Your task to perform on an android device: What's the weather today? Image 0: 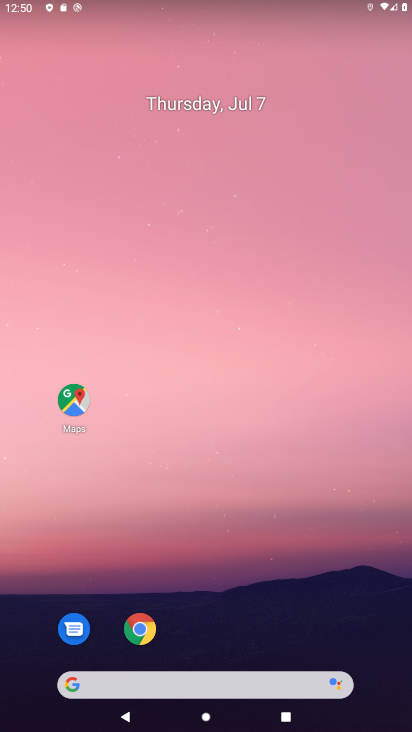
Step 0: drag from (220, 609) to (241, 171)
Your task to perform on an android device: What's the weather today? Image 1: 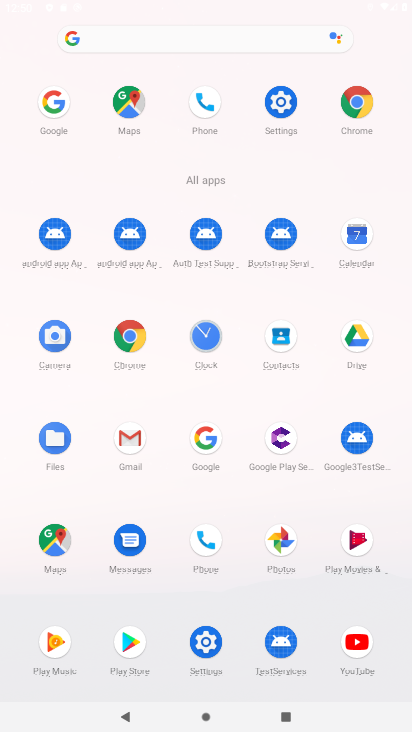
Step 1: click (51, 101)
Your task to perform on an android device: What's the weather today? Image 2: 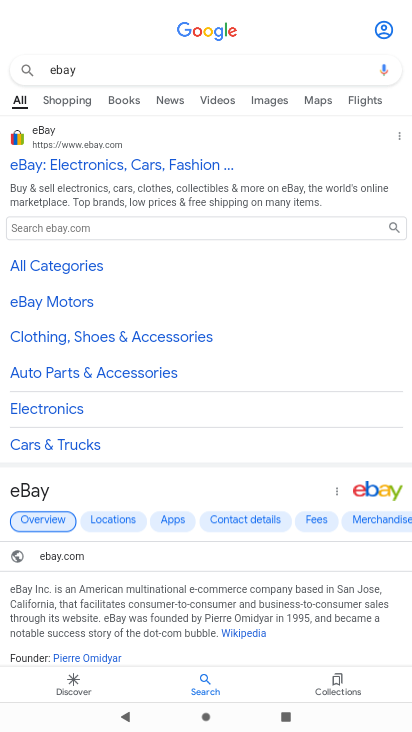
Step 2: click (224, 68)
Your task to perform on an android device: What's the weather today? Image 3: 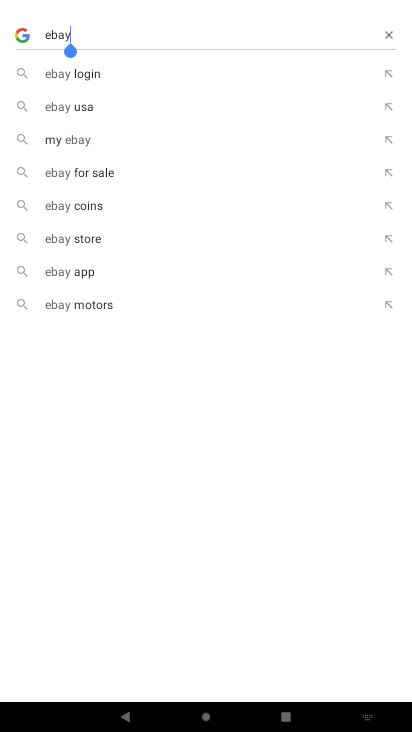
Step 3: click (382, 28)
Your task to perform on an android device: What's the weather today? Image 4: 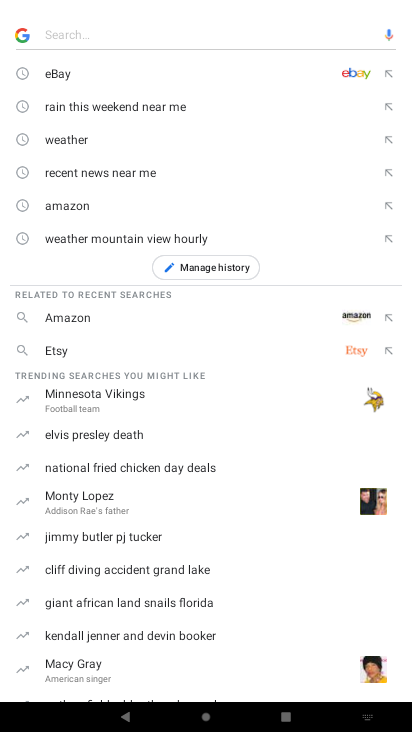
Step 4: type "weather today"
Your task to perform on an android device: What's the weather today? Image 5: 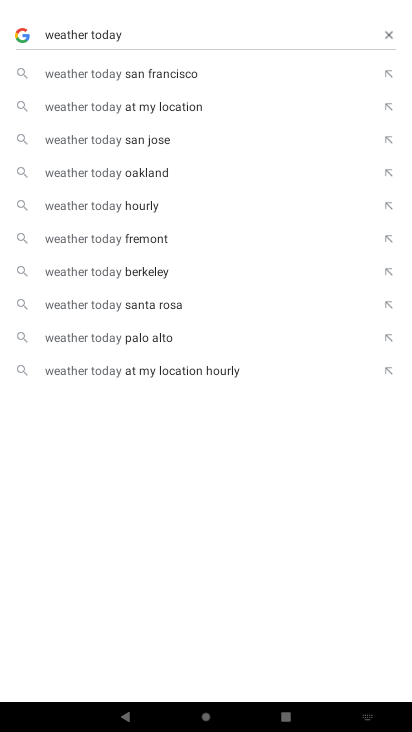
Step 5: click (386, 37)
Your task to perform on an android device: What's the weather today? Image 6: 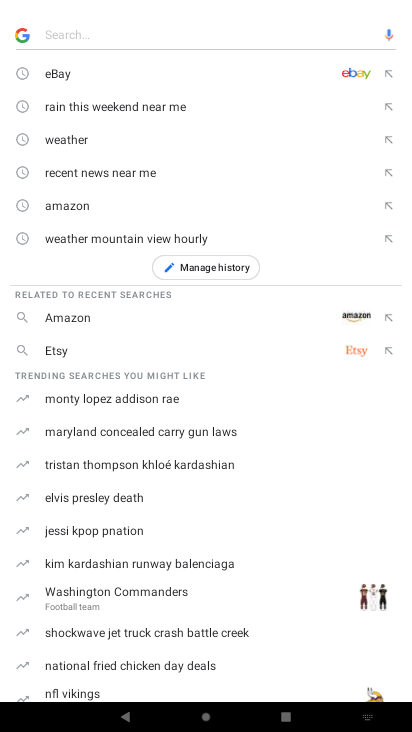
Step 6: click (93, 139)
Your task to perform on an android device: What's the weather today? Image 7: 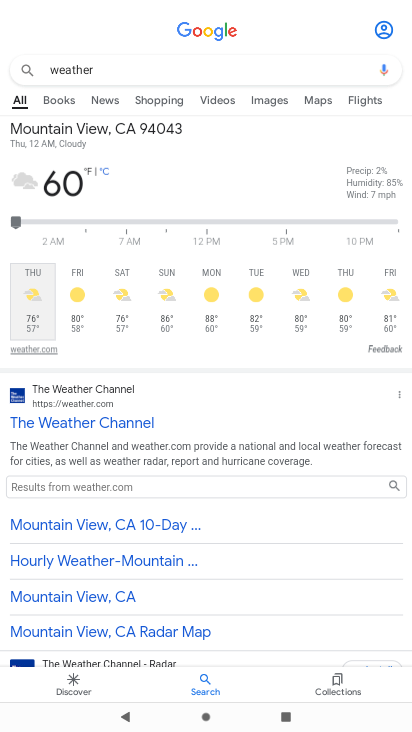
Step 7: task complete